Your task to perform on an android device: add a contact in the contacts app Image 0: 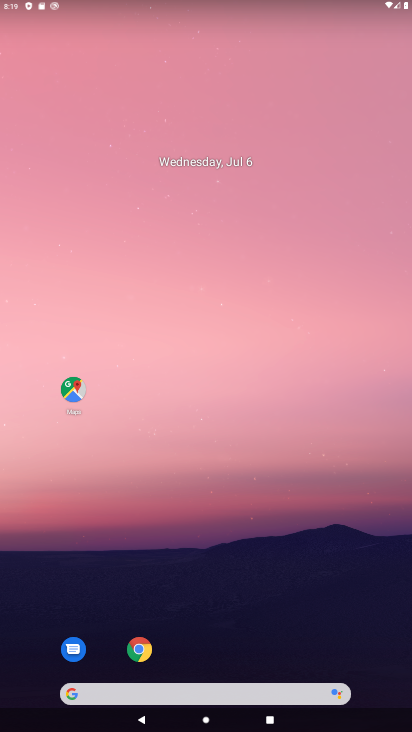
Step 0: drag from (263, 587) to (298, 81)
Your task to perform on an android device: add a contact in the contacts app Image 1: 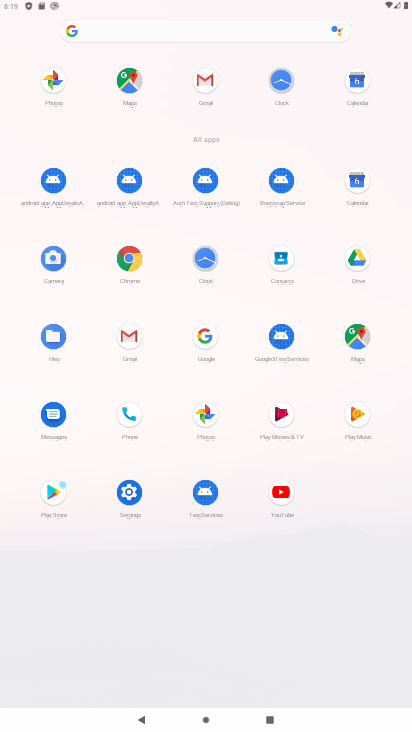
Step 1: click (282, 265)
Your task to perform on an android device: add a contact in the contacts app Image 2: 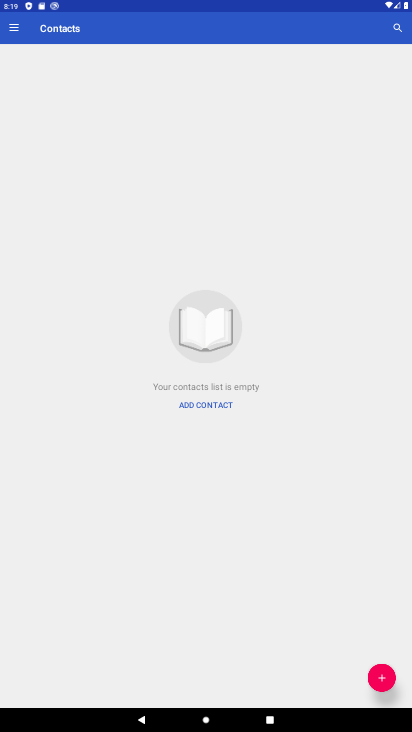
Step 2: click (384, 676)
Your task to perform on an android device: add a contact in the contacts app Image 3: 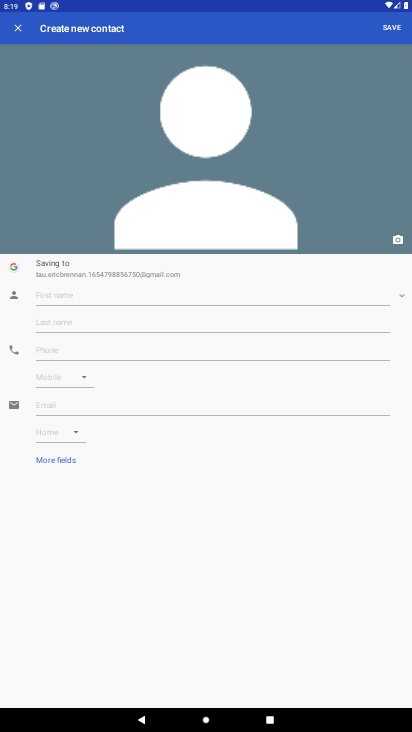
Step 3: click (89, 297)
Your task to perform on an android device: add a contact in the contacts app Image 4: 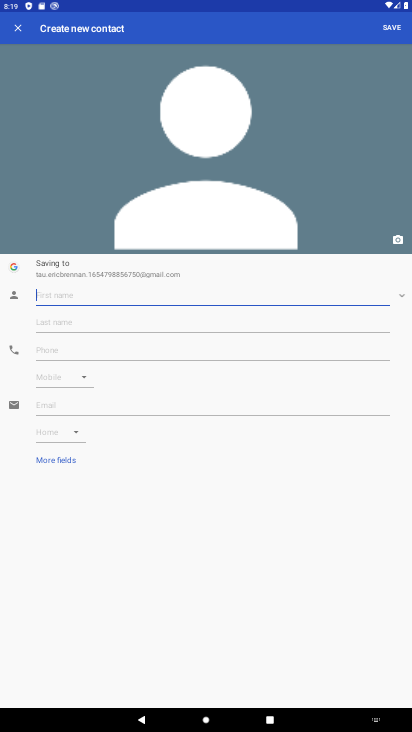
Step 4: type "john"
Your task to perform on an android device: add a contact in the contacts app Image 5: 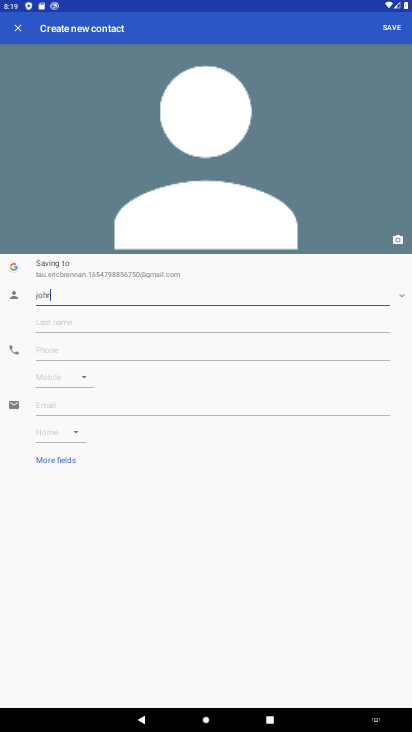
Step 5: click (160, 326)
Your task to perform on an android device: add a contact in the contacts app Image 6: 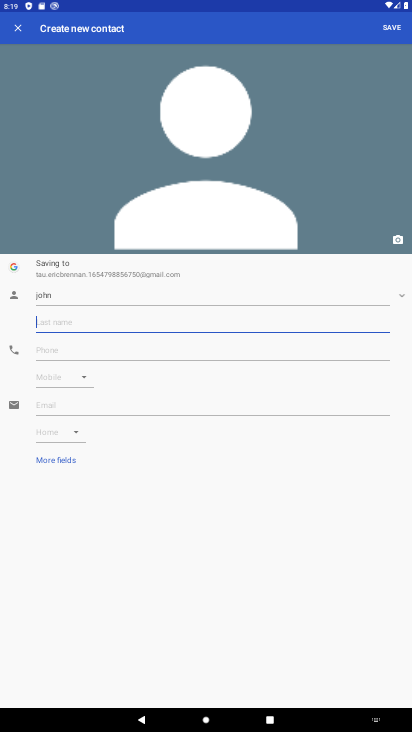
Step 6: type "smith"
Your task to perform on an android device: add a contact in the contacts app Image 7: 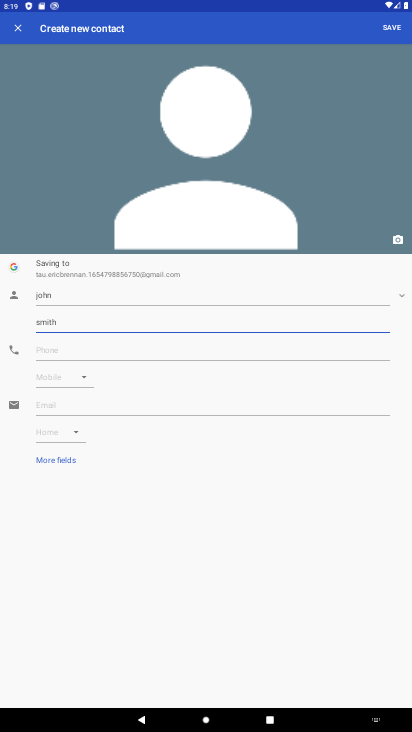
Step 7: click (394, 29)
Your task to perform on an android device: add a contact in the contacts app Image 8: 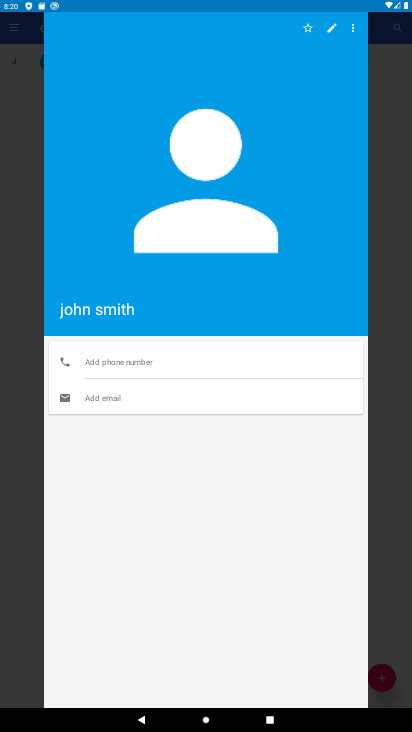
Step 8: task complete